Your task to perform on an android device: Go to settings Image 0: 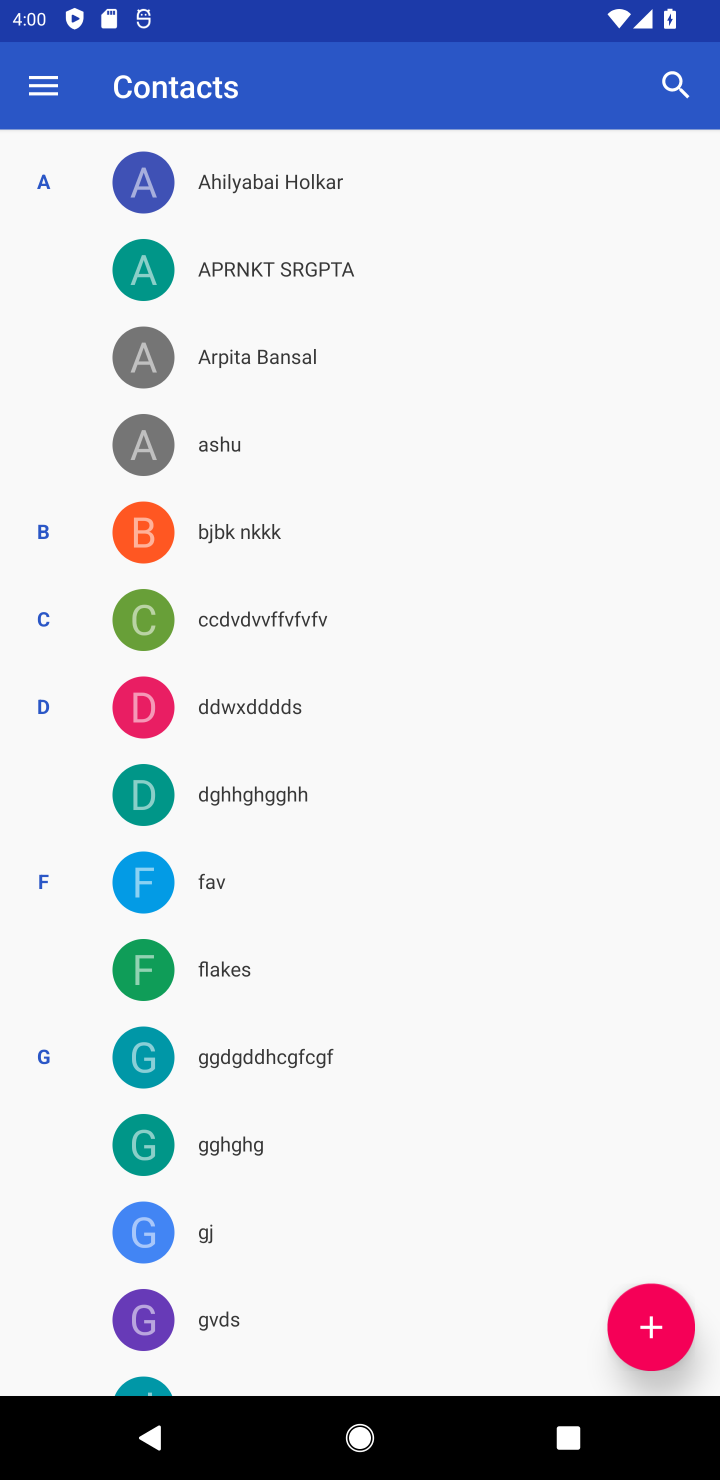
Step 0: press home button
Your task to perform on an android device: Go to settings Image 1: 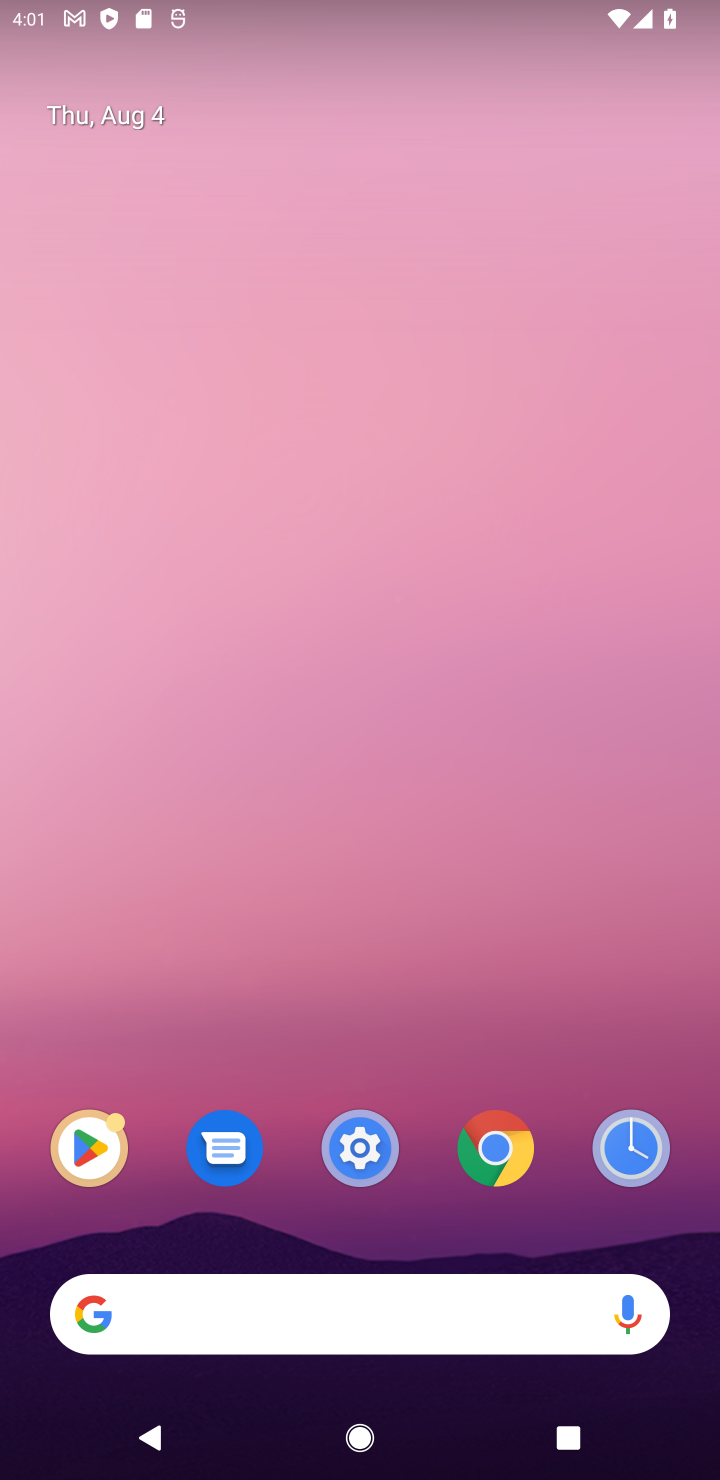
Step 1: click (427, 1197)
Your task to perform on an android device: Go to settings Image 2: 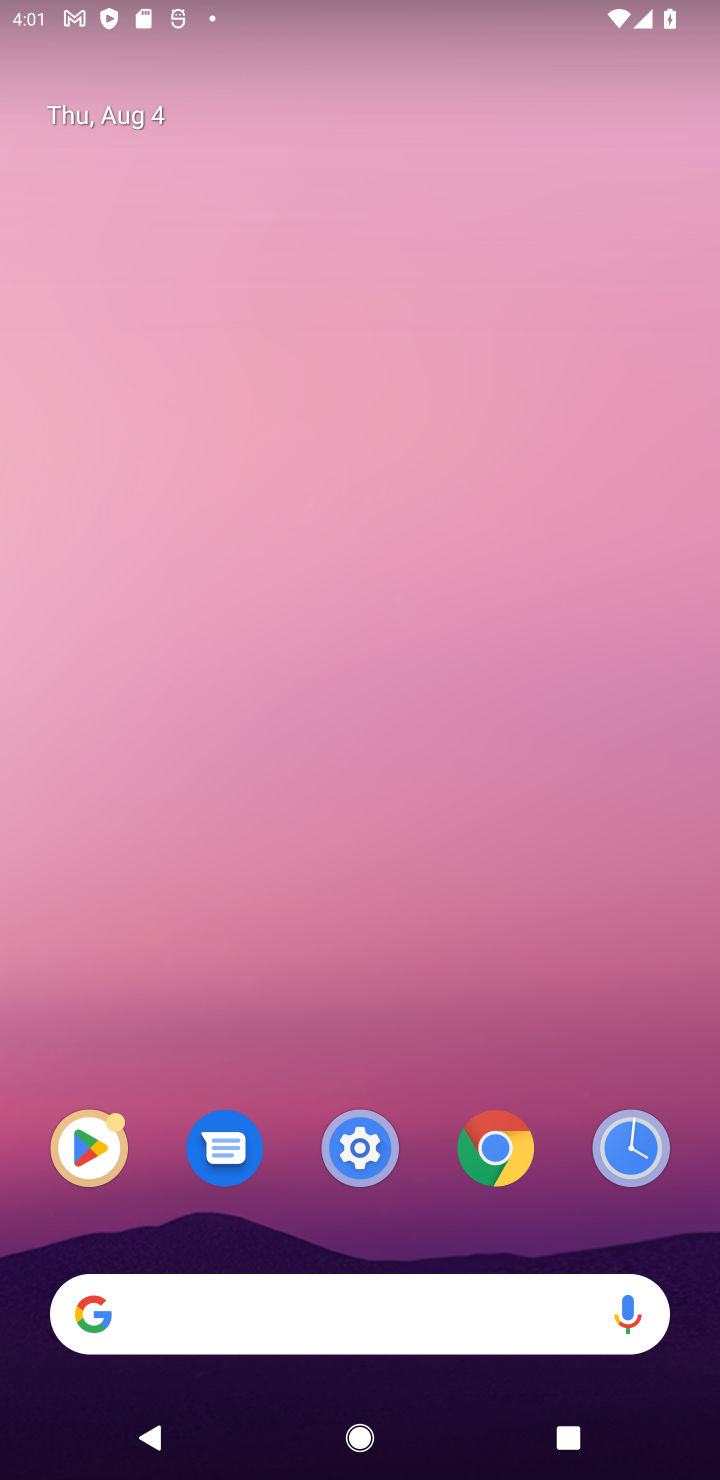
Step 2: click (357, 1148)
Your task to perform on an android device: Go to settings Image 3: 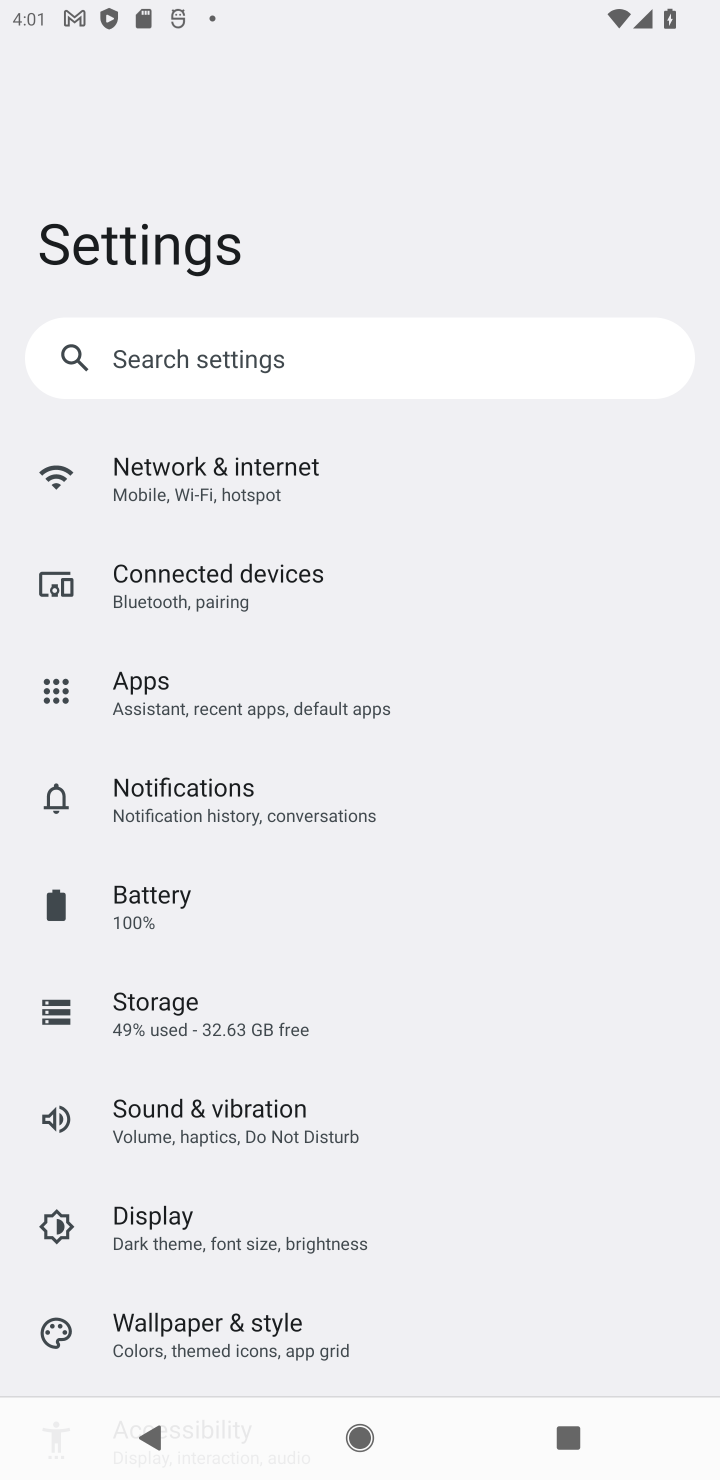
Step 3: task complete